Your task to perform on an android device: check the backup settings in the google photos Image 0: 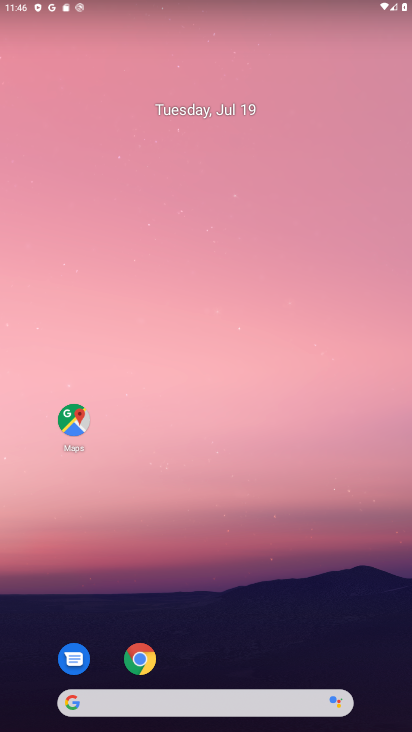
Step 0: drag from (309, 539) to (256, 100)
Your task to perform on an android device: check the backup settings in the google photos Image 1: 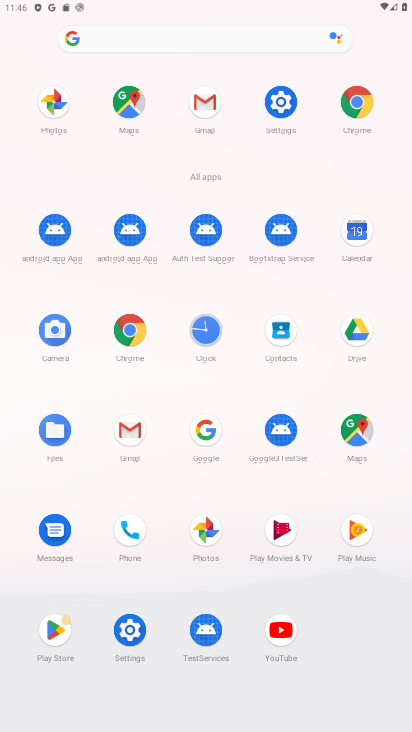
Step 1: click (208, 535)
Your task to perform on an android device: check the backup settings in the google photos Image 2: 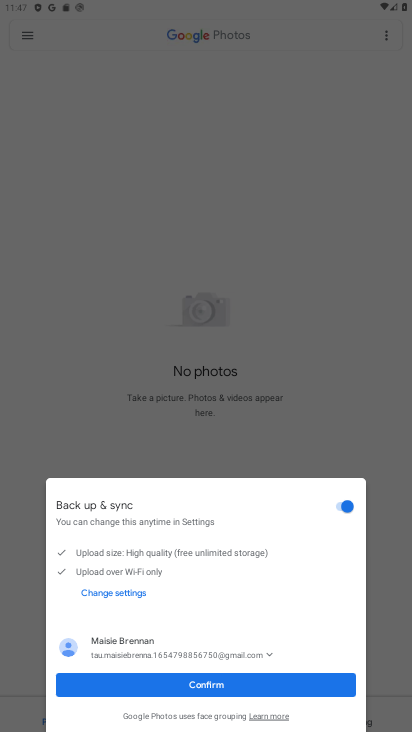
Step 2: click (229, 685)
Your task to perform on an android device: check the backup settings in the google photos Image 3: 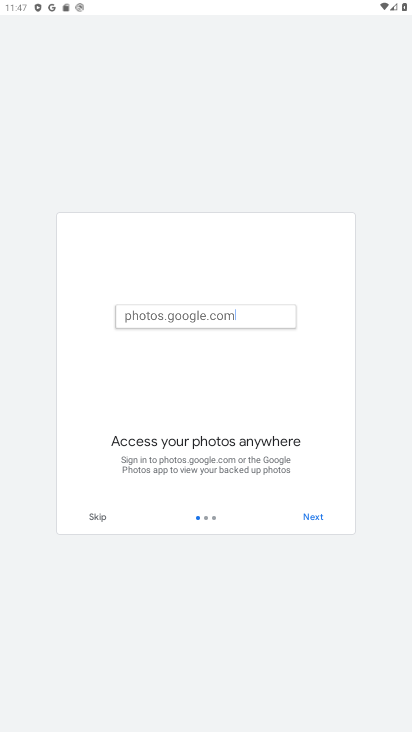
Step 3: click (97, 515)
Your task to perform on an android device: check the backup settings in the google photos Image 4: 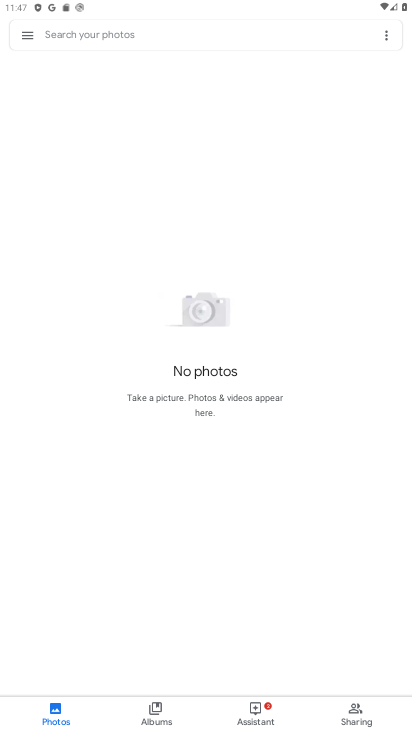
Step 4: click (27, 40)
Your task to perform on an android device: check the backup settings in the google photos Image 5: 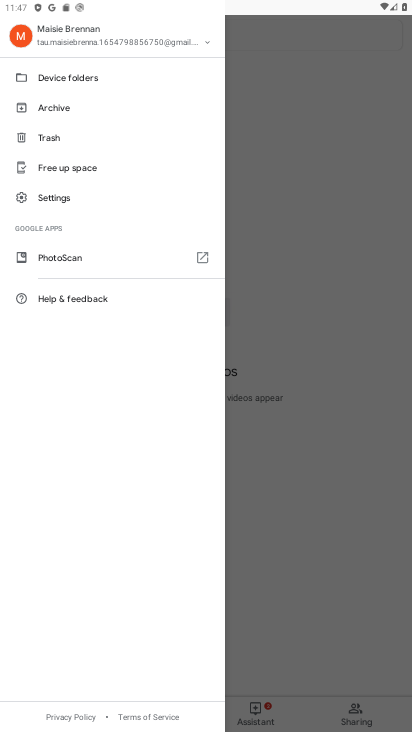
Step 5: click (57, 202)
Your task to perform on an android device: check the backup settings in the google photos Image 6: 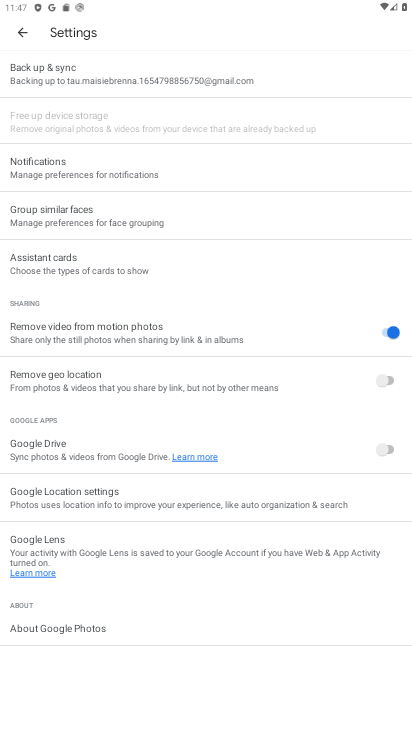
Step 6: click (73, 72)
Your task to perform on an android device: check the backup settings in the google photos Image 7: 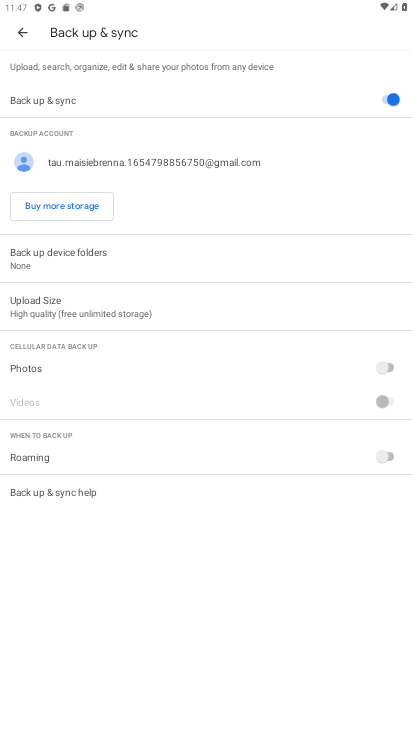
Step 7: task complete